Your task to perform on an android device: change timer sound Image 0: 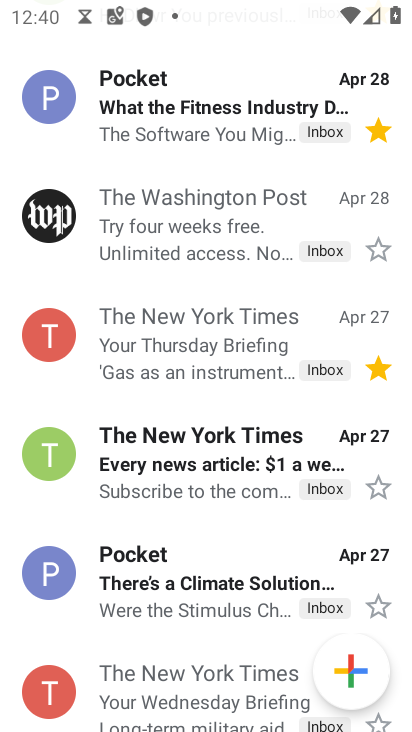
Step 0: press home button
Your task to perform on an android device: change timer sound Image 1: 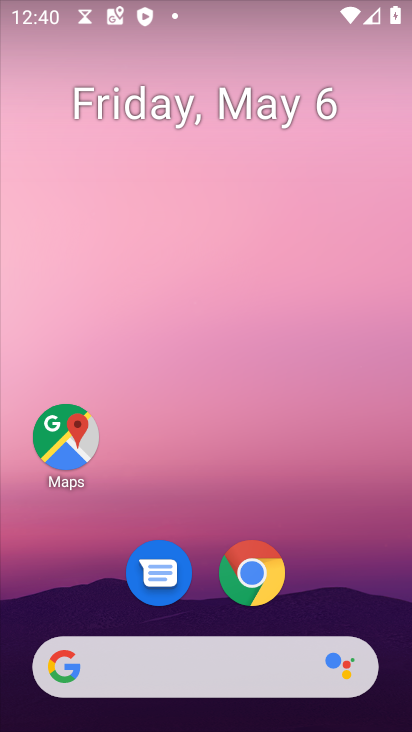
Step 1: drag from (310, 470) to (339, 257)
Your task to perform on an android device: change timer sound Image 2: 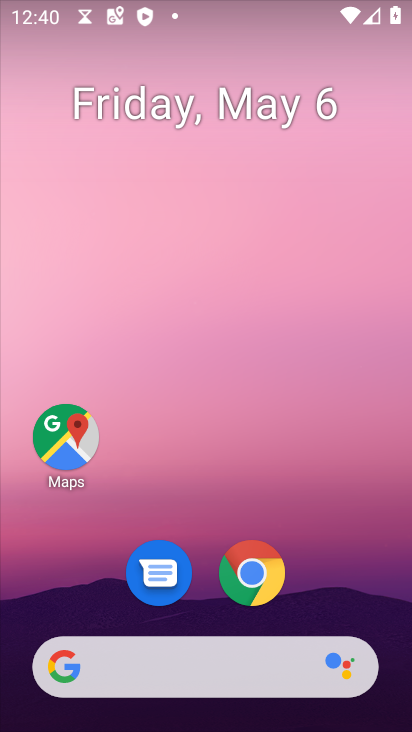
Step 2: drag from (302, 612) to (347, 278)
Your task to perform on an android device: change timer sound Image 3: 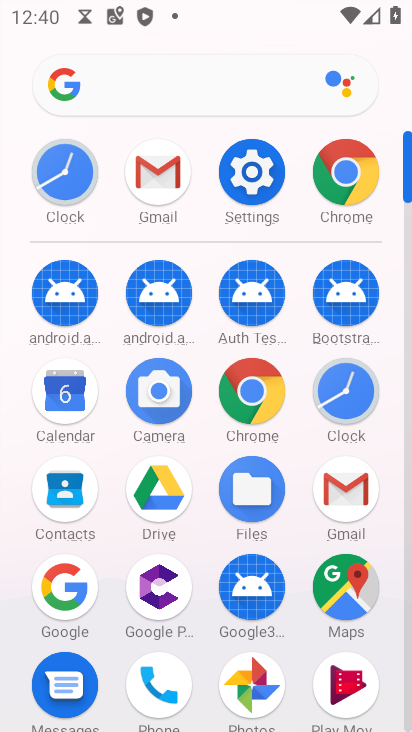
Step 3: click (342, 378)
Your task to perform on an android device: change timer sound Image 4: 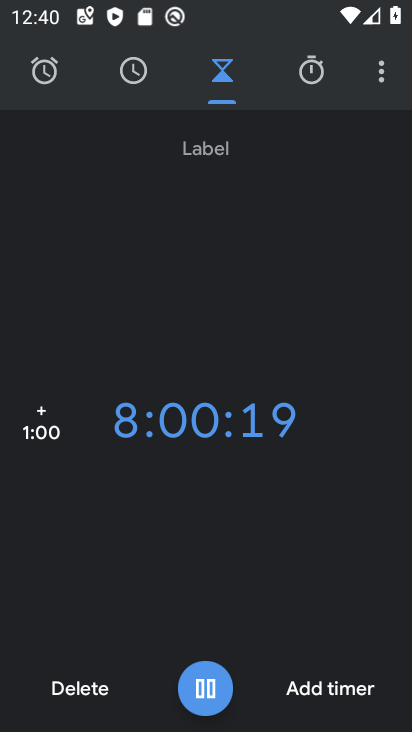
Step 4: click (371, 73)
Your task to perform on an android device: change timer sound Image 5: 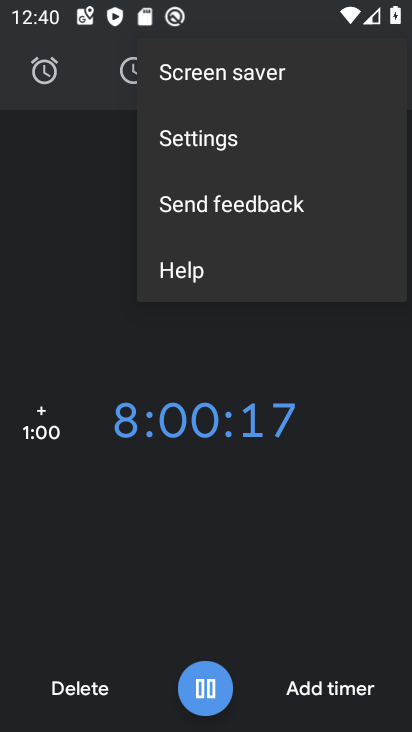
Step 5: click (232, 140)
Your task to perform on an android device: change timer sound Image 6: 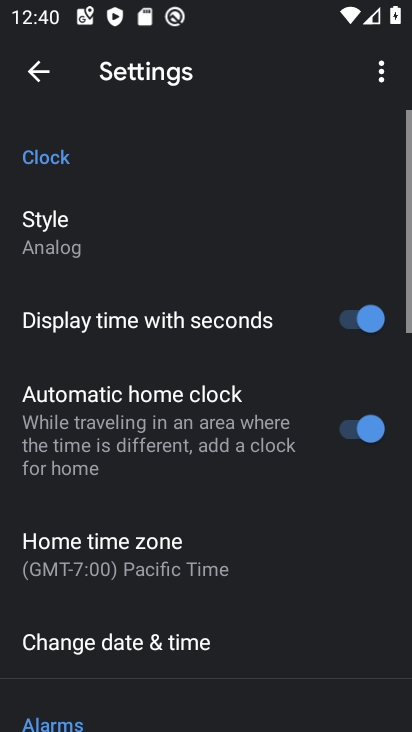
Step 6: drag from (202, 649) to (240, 152)
Your task to perform on an android device: change timer sound Image 7: 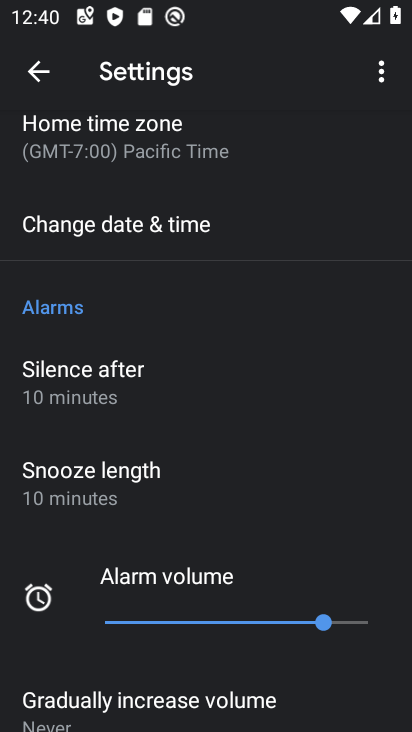
Step 7: drag from (180, 569) to (261, 198)
Your task to perform on an android device: change timer sound Image 8: 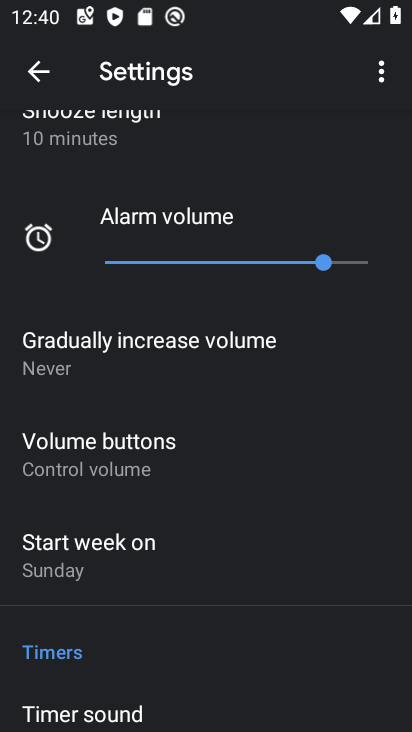
Step 8: drag from (117, 692) to (236, 419)
Your task to perform on an android device: change timer sound Image 9: 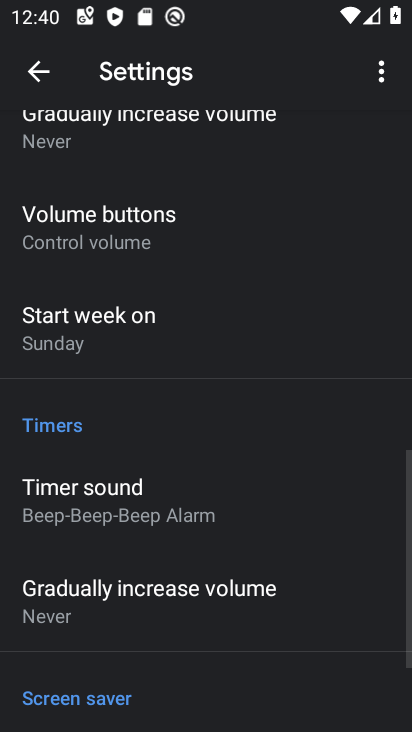
Step 9: click (163, 521)
Your task to perform on an android device: change timer sound Image 10: 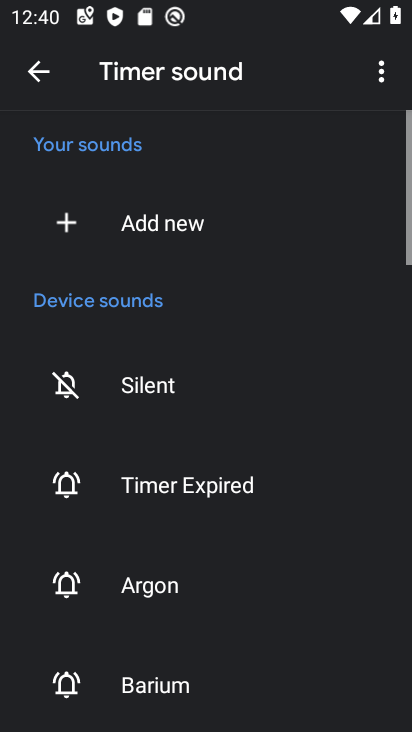
Step 10: click (162, 377)
Your task to perform on an android device: change timer sound Image 11: 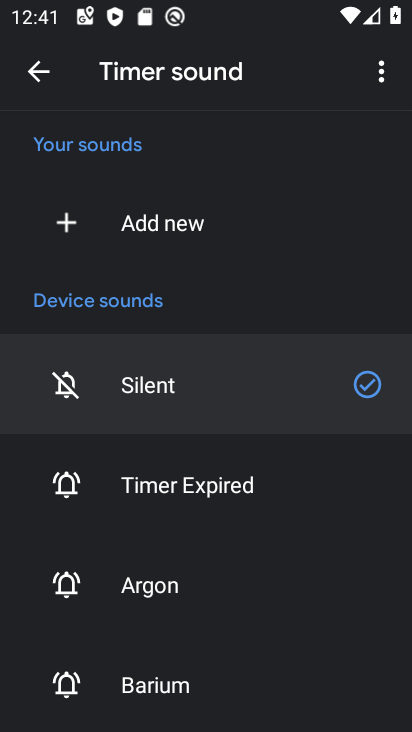
Step 11: task complete